Your task to perform on an android device: delete browsing data in the chrome app Image 0: 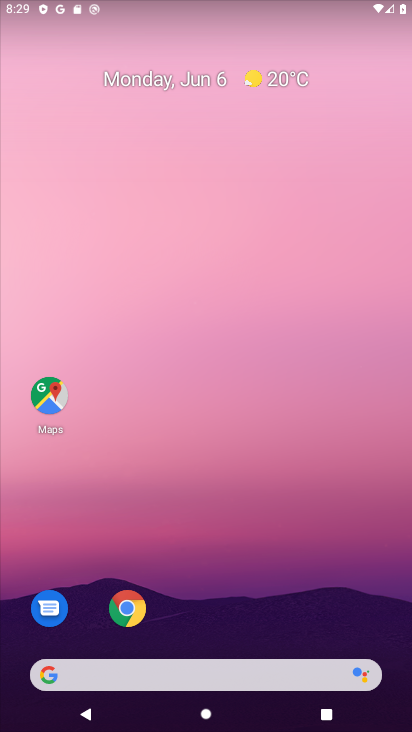
Step 0: click (136, 613)
Your task to perform on an android device: delete browsing data in the chrome app Image 1: 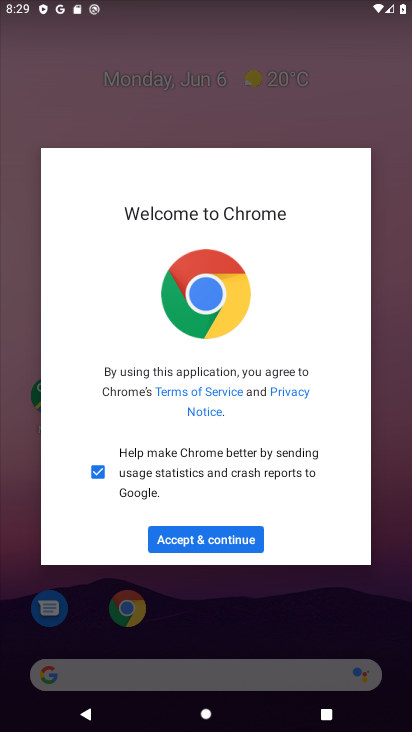
Step 1: click (212, 527)
Your task to perform on an android device: delete browsing data in the chrome app Image 2: 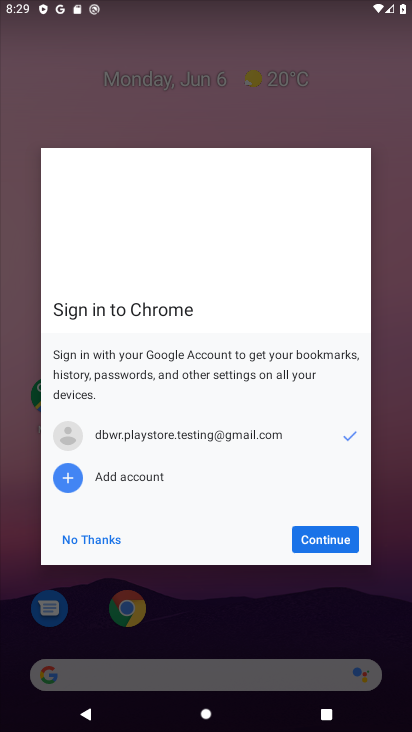
Step 2: click (325, 536)
Your task to perform on an android device: delete browsing data in the chrome app Image 3: 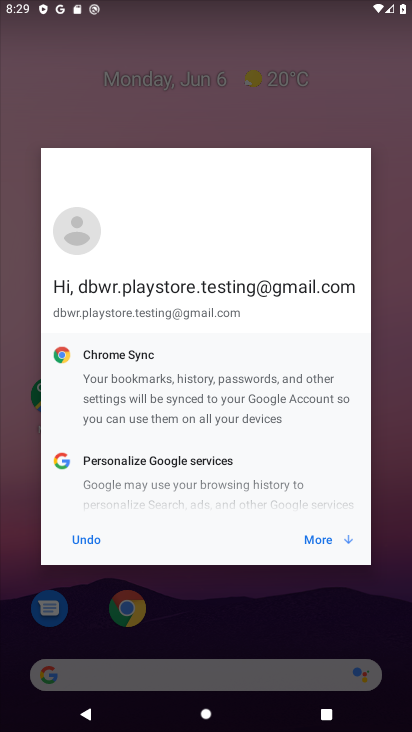
Step 3: click (325, 536)
Your task to perform on an android device: delete browsing data in the chrome app Image 4: 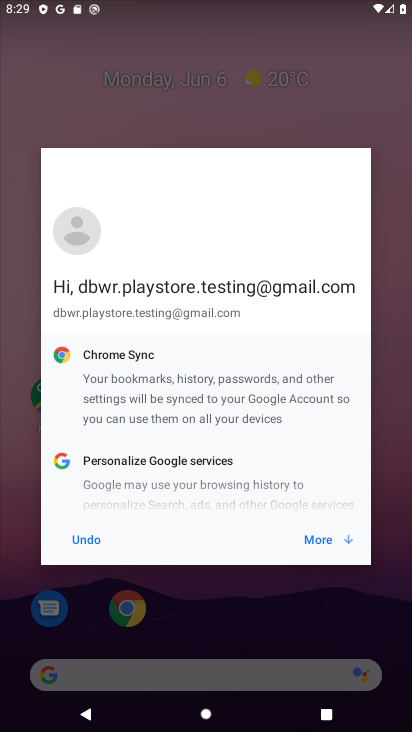
Step 4: click (325, 536)
Your task to perform on an android device: delete browsing data in the chrome app Image 5: 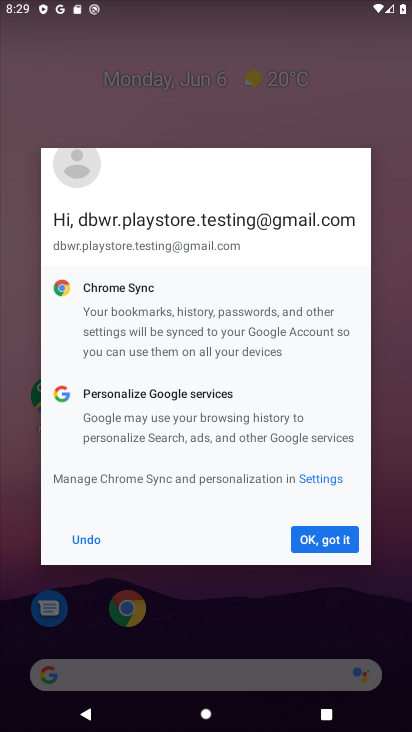
Step 5: click (325, 536)
Your task to perform on an android device: delete browsing data in the chrome app Image 6: 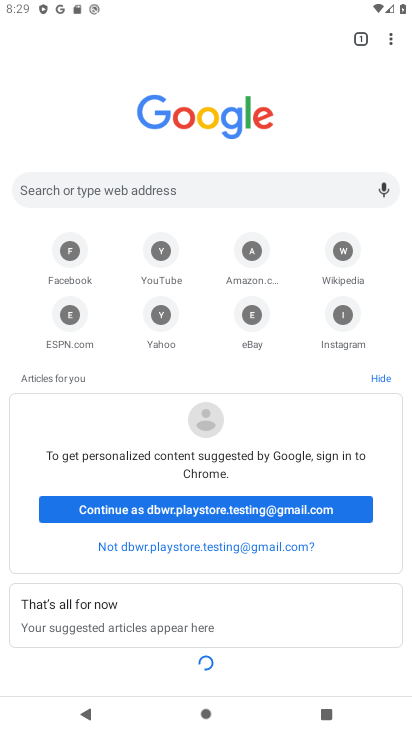
Step 6: task complete